Your task to perform on an android device: change the upload size in google photos Image 0: 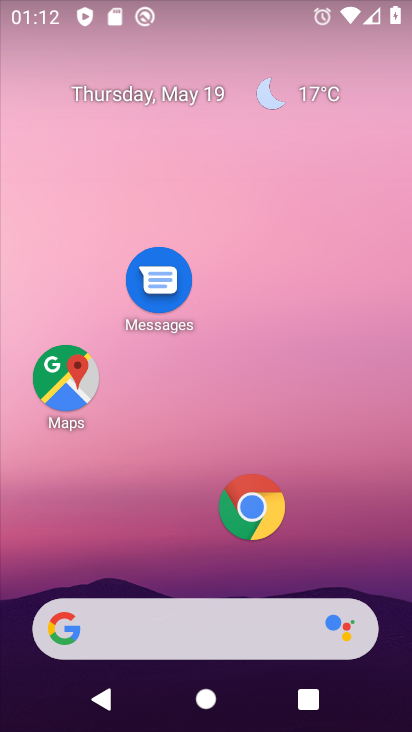
Step 0: drag from (207, 596) to (288, 67)
Your task to perform on an android device: change the upload size in google photos Image 1: 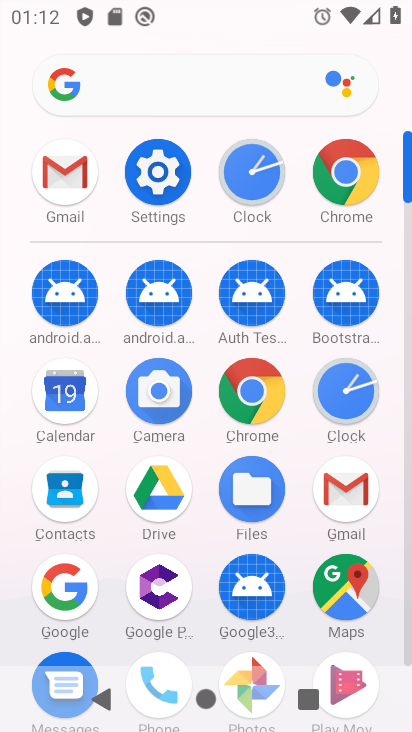
Step 1: drag from (207, 625) to (213, 279)
Your task to perform on an android device: change the upload size in google photos Image 2: 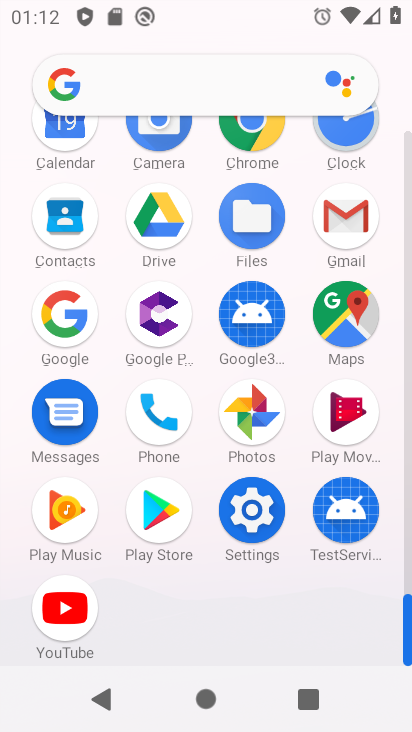
Step 2: click (256, 415)
Your task to perform on an android device: change the upload size in google photos Image 3: 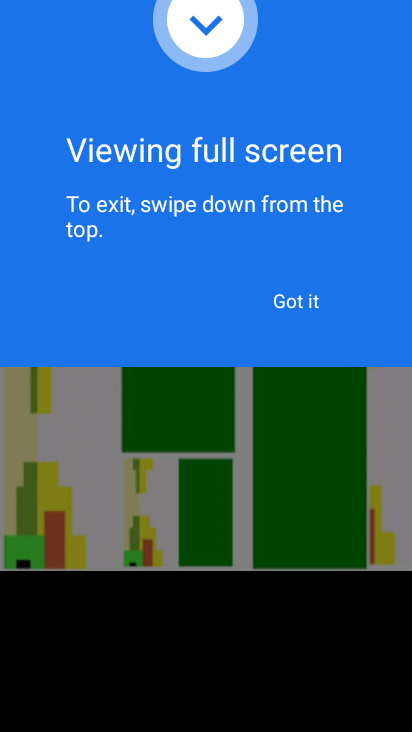
Step 3: click (315, 302)
Your task to perform on an android device: change the upload size in google photos Image 4: 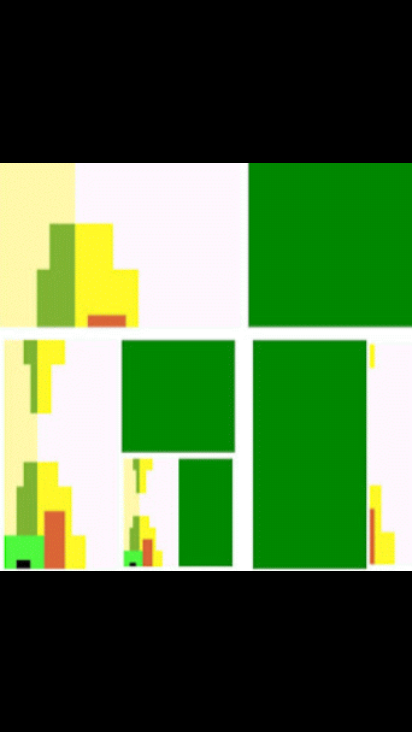
Step 4: press back button
Your task to perform on an android device: change the upload size in google photos Image 5: 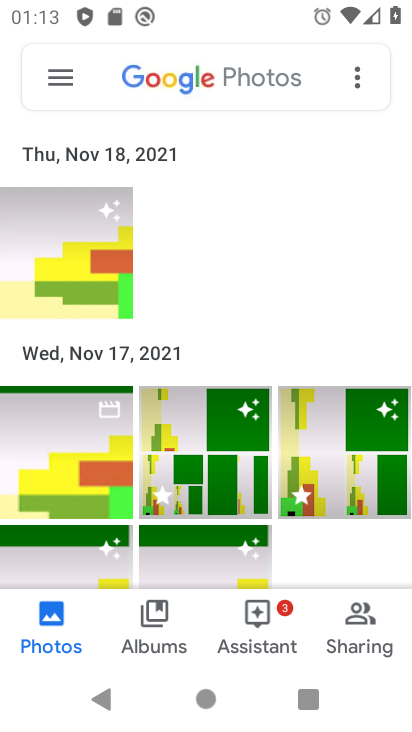
Step 5: click (356, 83)
Your task to perform on an android device: change the upload size in google photos Image 6: 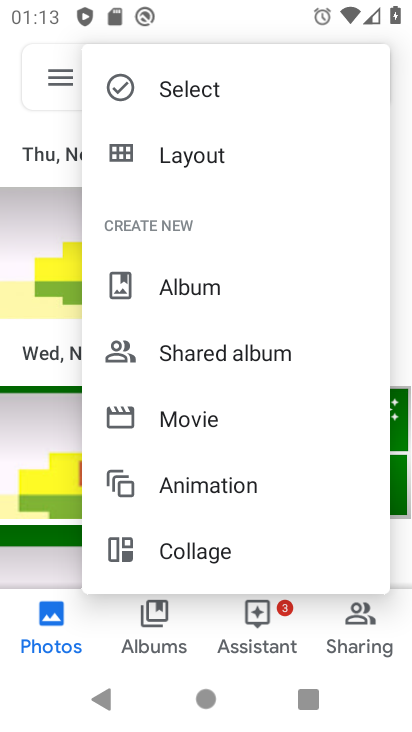
Step 6: click (18, 168)
Your task to perform on an android device: change the upload size in google photos Image 7: 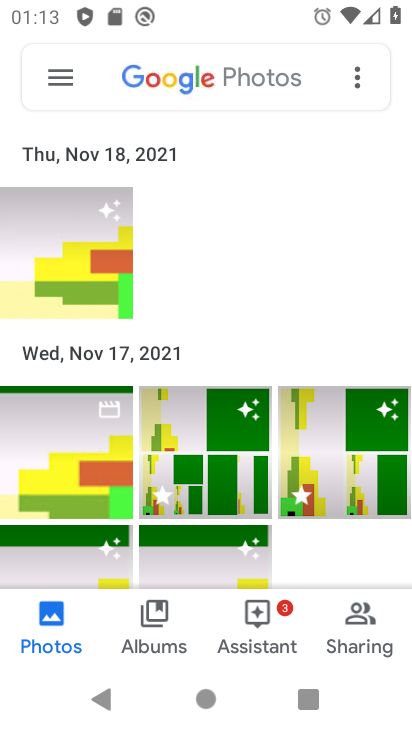
Step 7: click (51, 83)
Your task to perform on an android device: change the upload size in google photos Image 8: 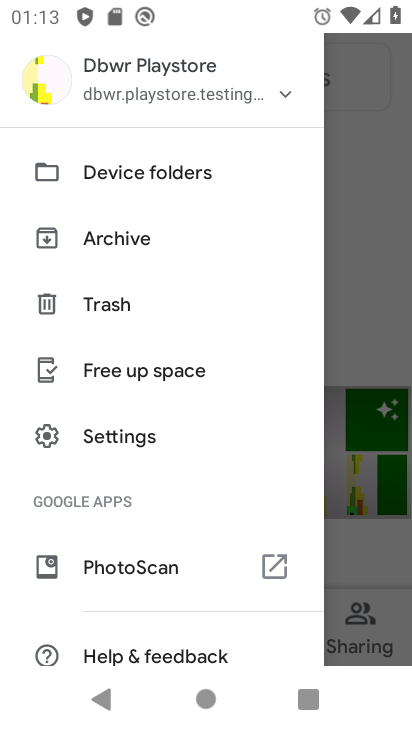
Step 8: drag from (131, 626) to (204, 240)
Your task to perform on an android device: change the upload size in google photos Image 9: 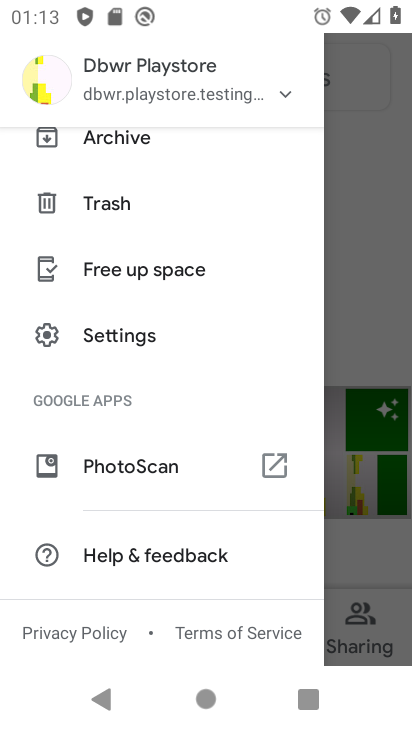
Step 9: drag from (139, 595) to (213, 219)
Your task to perform on an android device: change the upload size in google photos Image 10: 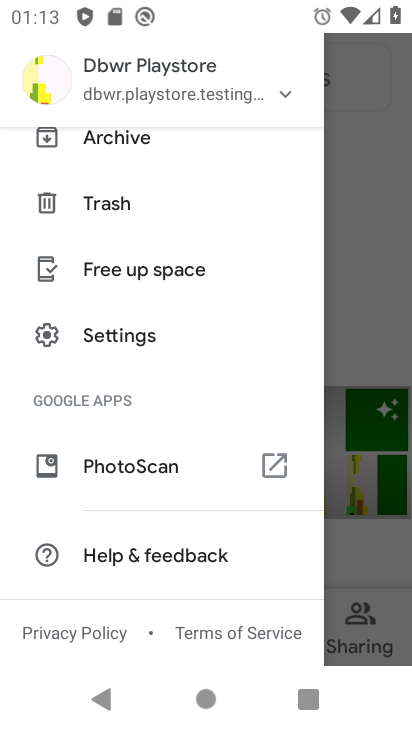
Step 10: click (129, 334)
Your task to perform on an android device: change the upload size in google photos Image 11: 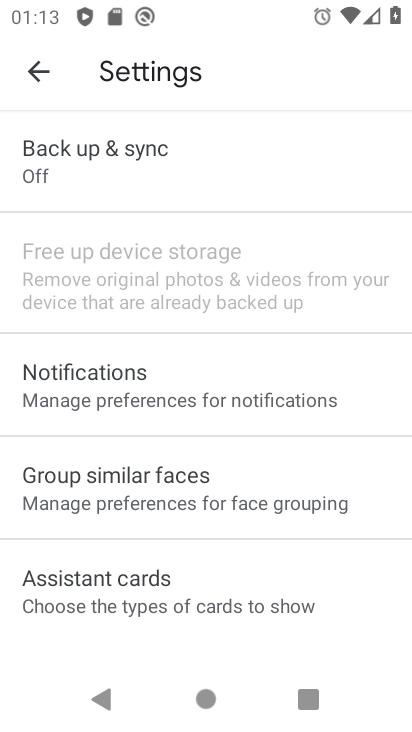
Step 11: click (147, 154)
Your task to perform on an android device: change the upload size in google photos Image 12: 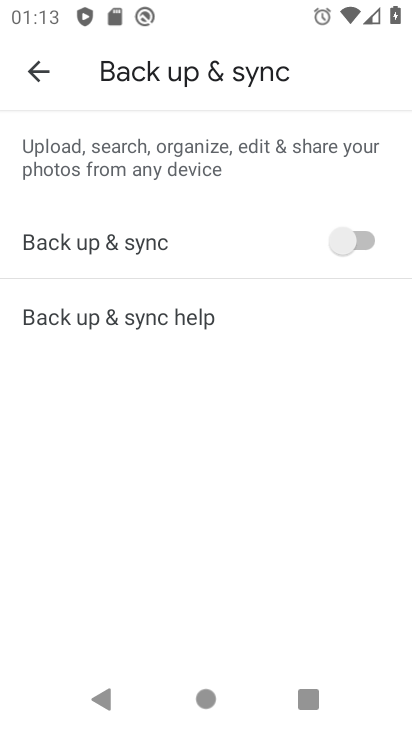
Step 12: click (35, 65)
Your task to perform on an android device: change the upload size in google photos Image 13: 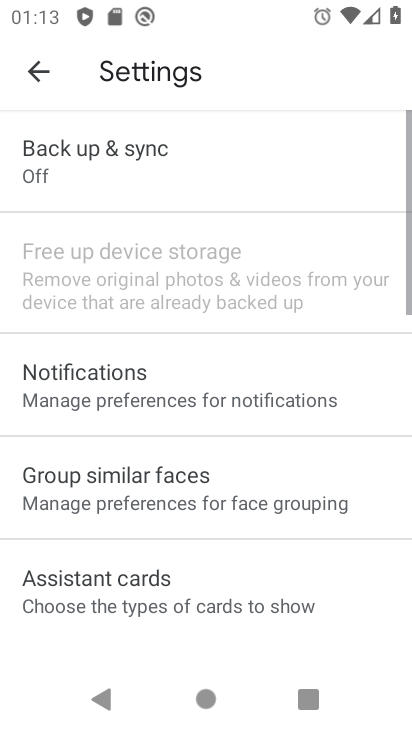
Step 13: drag from (237, 579) to (245, 284)
Your task to perform on an android device: change the upload size in google photos Image 14: 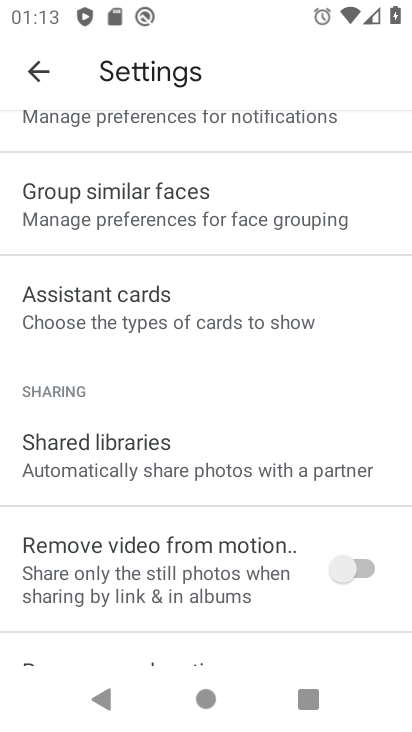
Step 14: drag from (176, 579) to (216, 291)
Your task to perform on an android device: change the upload size in google photos Image 15: 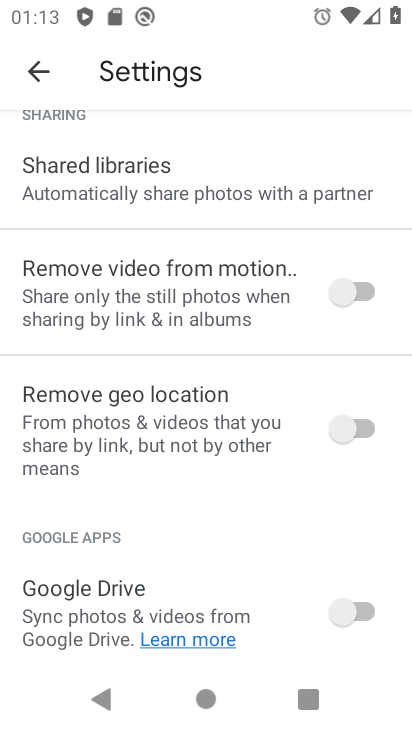
Step 15: drag from (224, 204) to (256, 580)
Your task to perform on an android device: change the upload size in google photos Image 16: 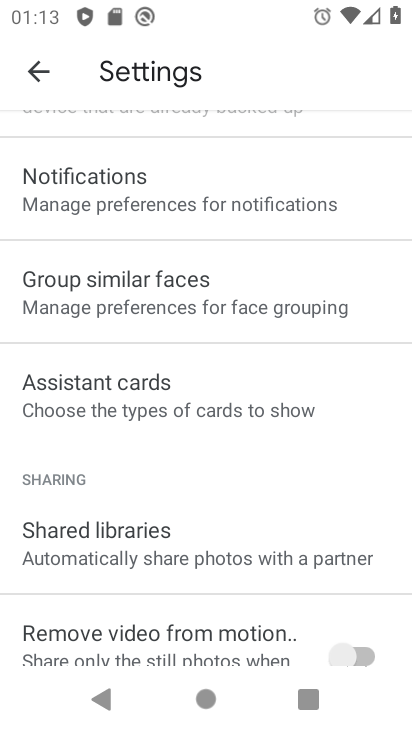
Step 16: drag from (205, 163) to (205, 517)
Your task to perform on an android device: change the upload size in google photos Image 17: 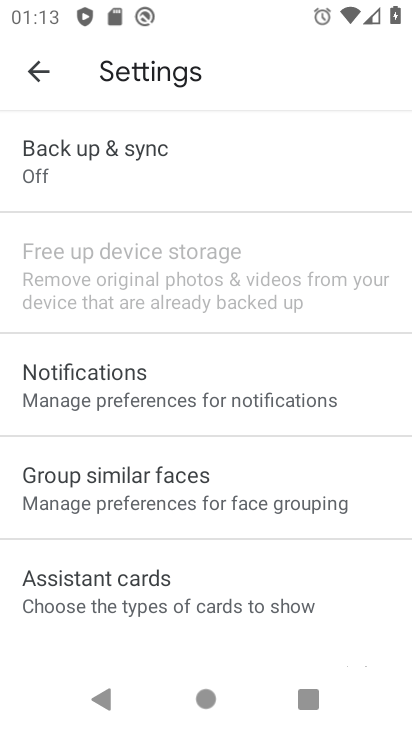
Step 17: click (128, 144)
Your task to perform on an android device: change the upload size in google photos Image 18: 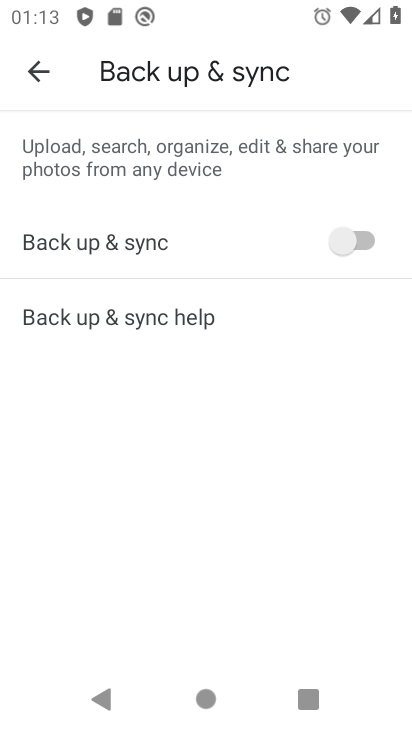
Step 18: click (354, 240)
Your task to perform on an android device: change the upload size in google photos Image 19: 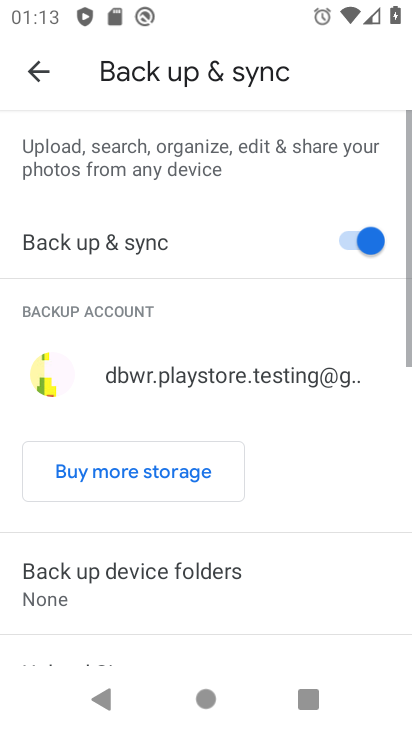
Step 19: drag from (148, 593) to (198, 290)
Your task to perform on an android device: change the upload size in google photos Image 20: 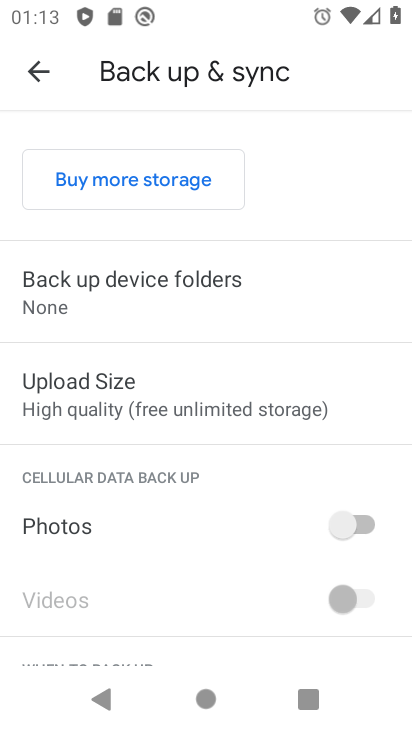
Step 20: click (99, 397)
Your task to perform on an android device: change the upload size in google photos Image 21: 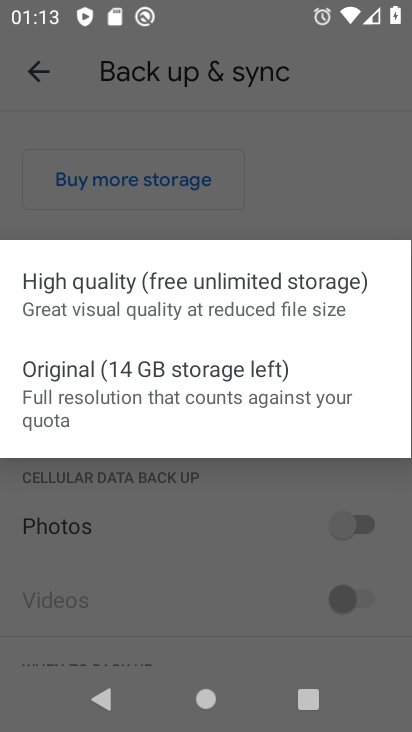
Step 21: click (95, 392)
Your task to perform on an android device: change the upload size in google photos Image 22: 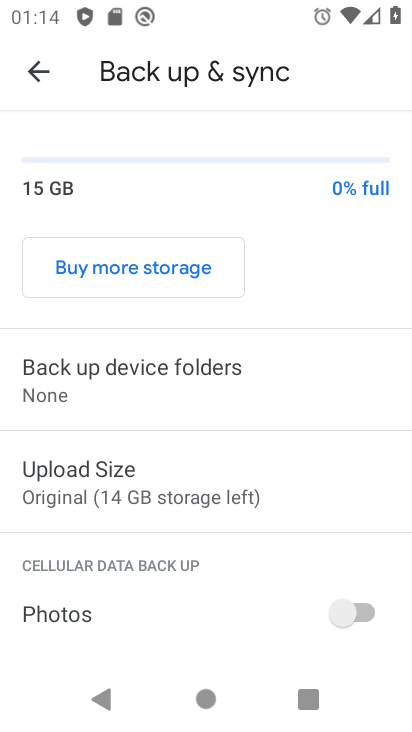
Step 22: task complete